Your task to perform on an android device: open app "Messages" Image 0: 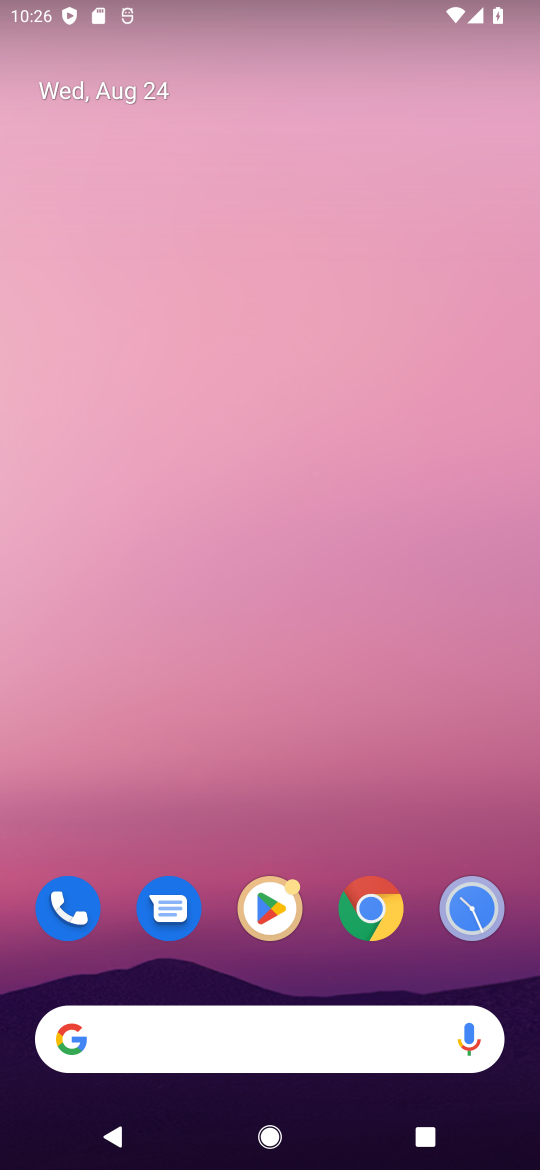
Step 0: click (160, 909)
Your task to perform on an android device: open app "Messages" Image 1: 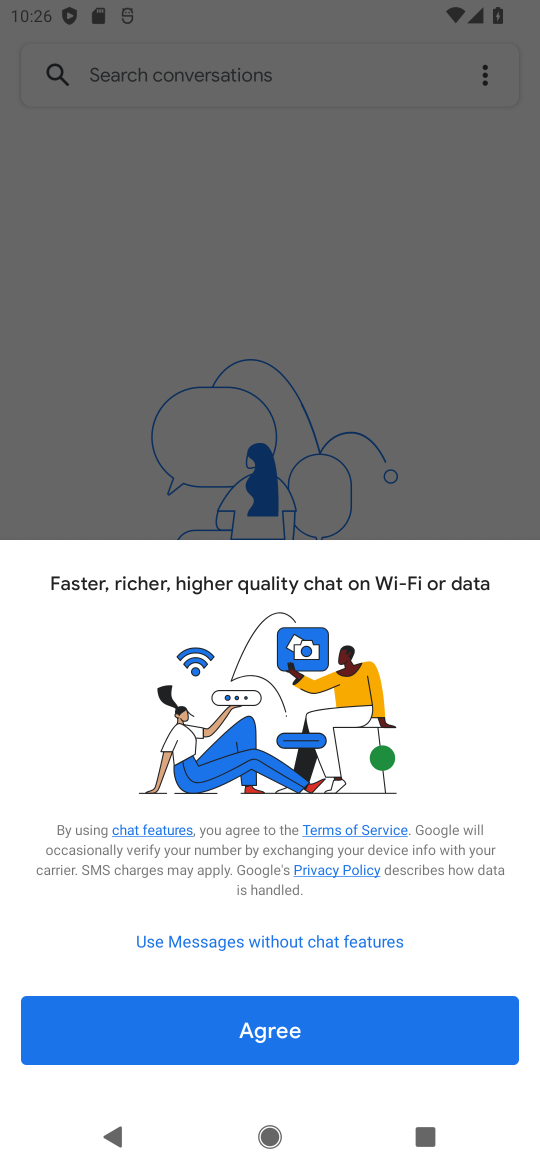
Step 1: press home button
Your task to perform on an android device: open app "Messages" Image 2: 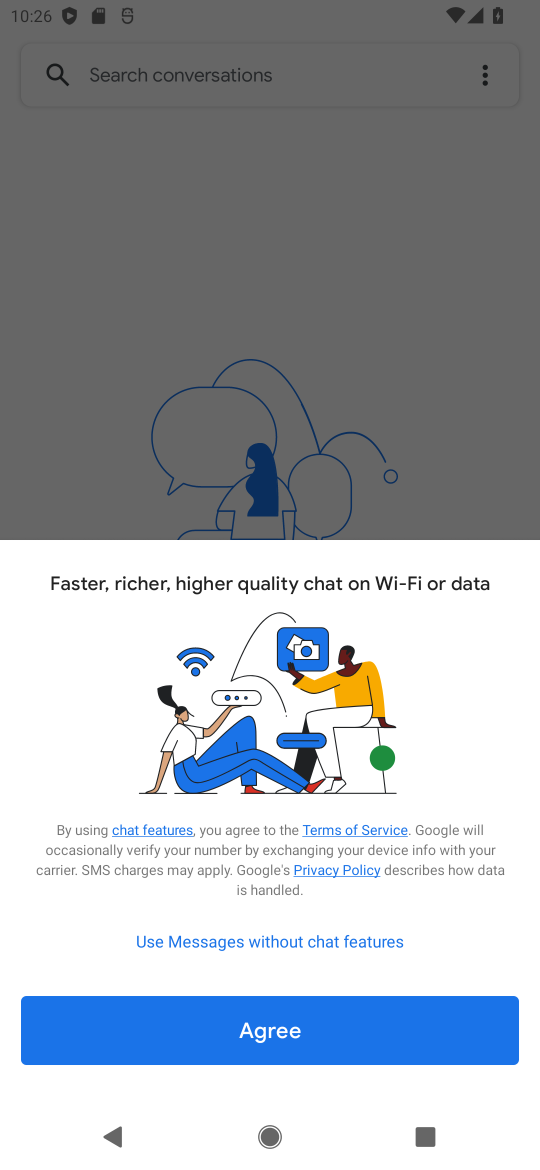
Step 2: press home button
Your task to perform on an android device: open app "Messages" Image 3: 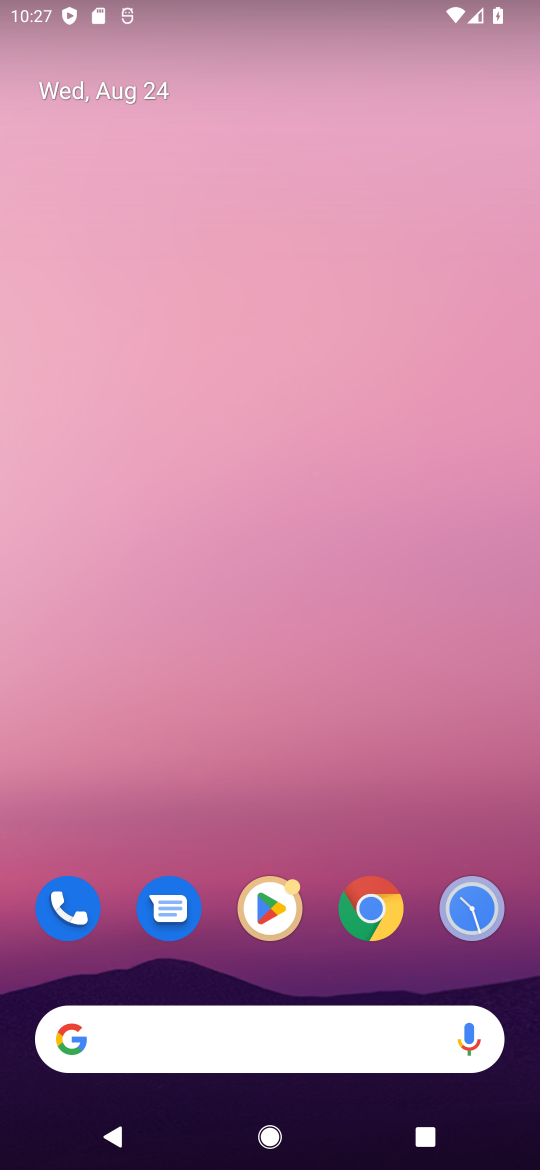
Step 3: click (179, 925)
Your task to perform on an android device: open app "Messages" Image 4: 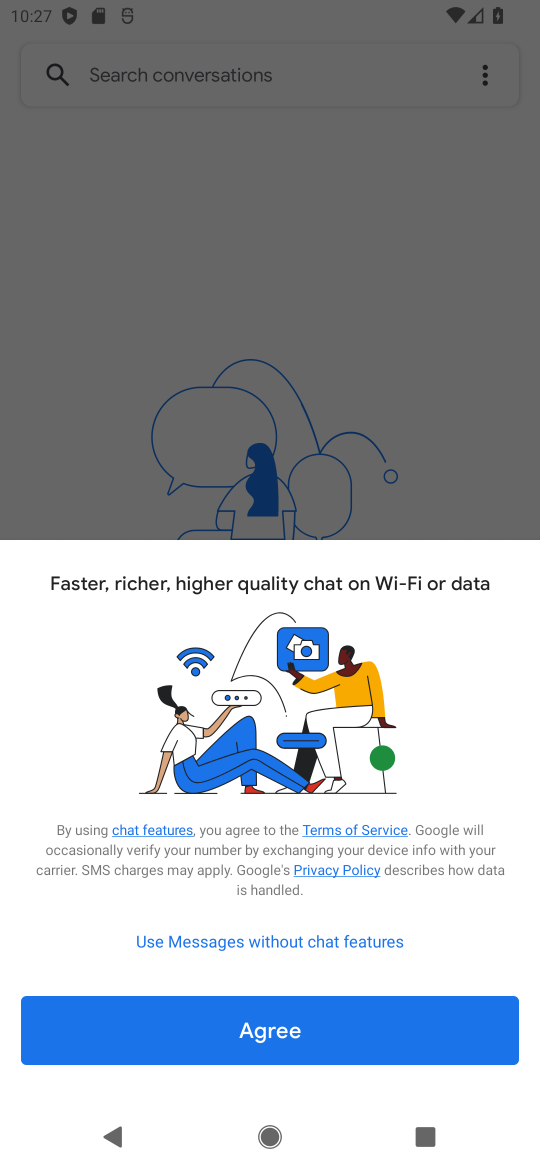
Step 4: task complete